Your task to perform on an android device: Open the calendar app, open the side menu, and click the "Day" option Image 0: 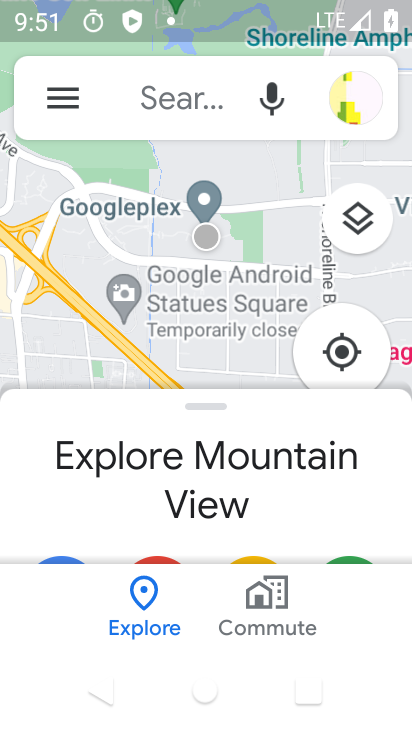
Step 0: press home button
Your task to perform on an android device: Open the calendar app, open the side menu, and click the "Day" option Image 1: 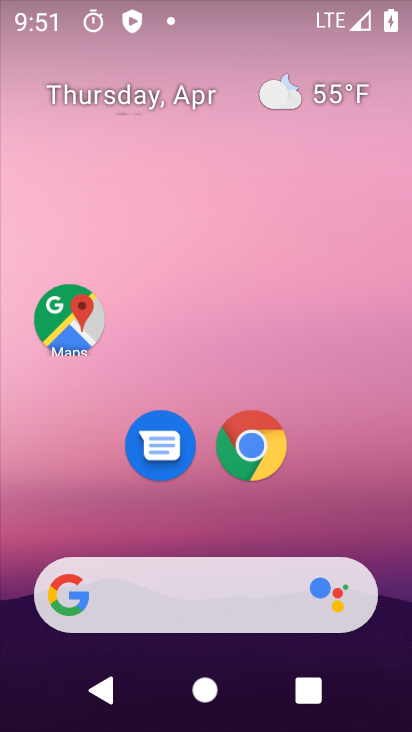
Step 1: drag from (362, 518) to (308, 0)
Your task to perform on an android device: Open the calendar app, open the side menu, and click the "Day" option Image 2: 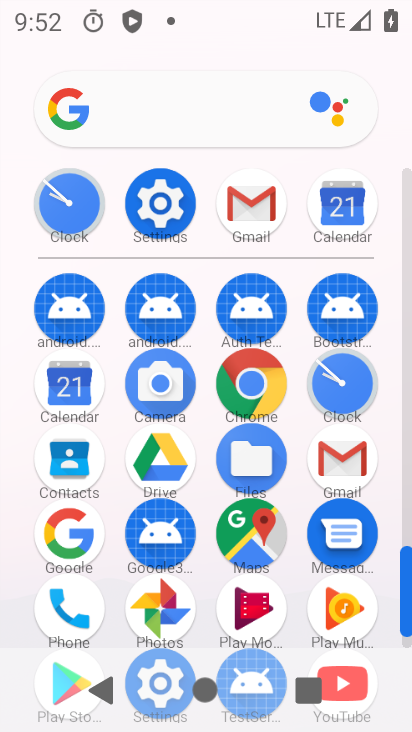
Step 2: click (331, 206)
Your task to perform on an android device: Open the calendar app, open the side menu, and click the "Day" option Image 3: 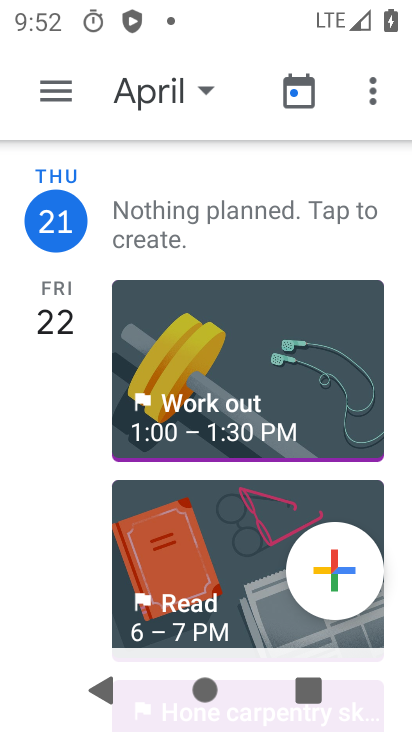
Step 3: click (57, 94)
Your task to perform on an android device: Open the calendar app, open the side menu, and click the "Day" option Image 4: 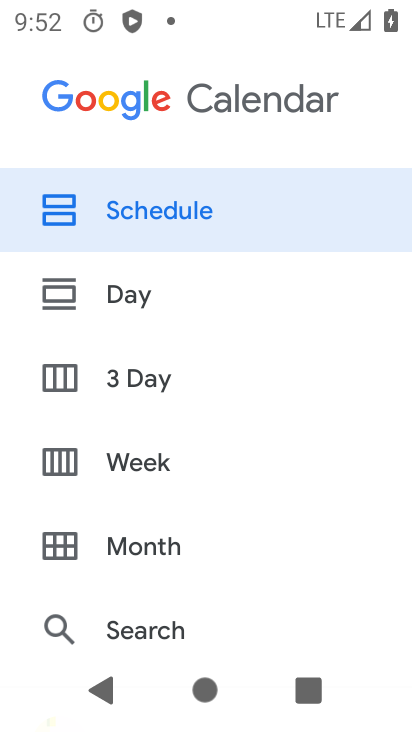
Step 4: click (98, 290)
Your task to perform on an android device: Open the calendar app, open the side menu, and click the "Day" option Image 5: 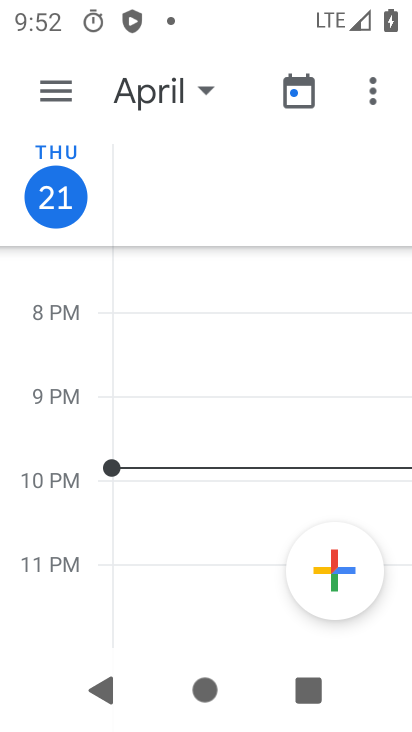
Step 5: task complete